Your task to perform on an android device: Open Wikipedia Image 0: 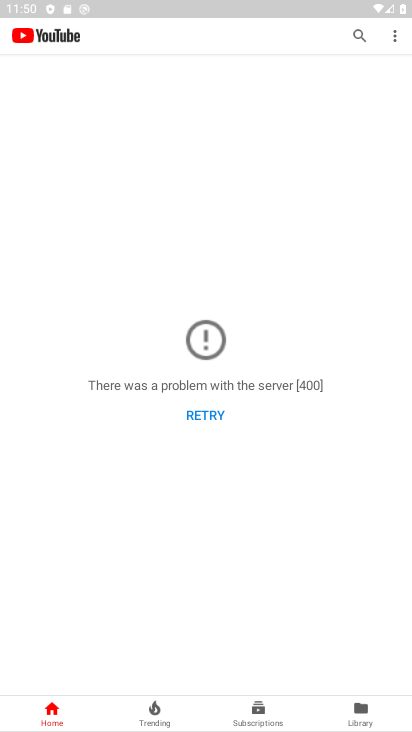
Step 0: press home button
Your task to perform on an android device: Open Wikipedia Image 1: 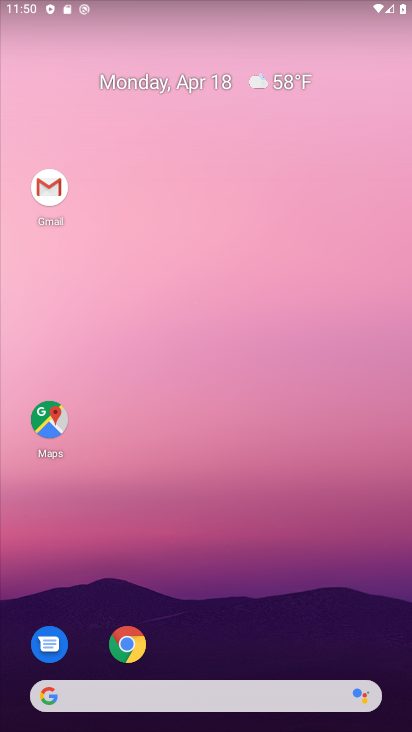
Step 1: click (135, 643)
Your task to perform on an android device: Open Wikipedia Image 2: 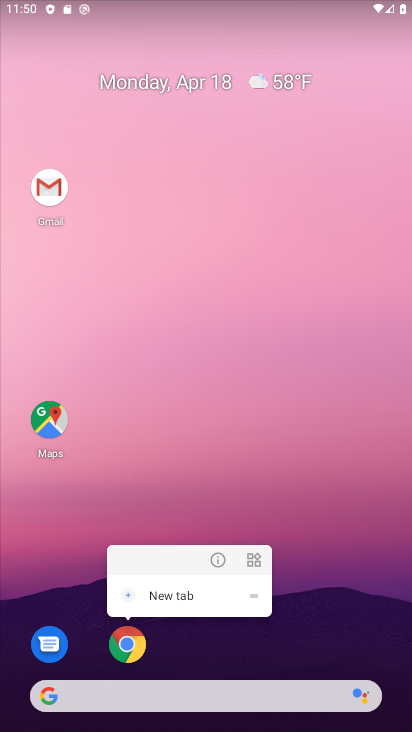
Step 2: click (125, 633)
Your task to perform on an android device: Open Wikipedia Image 3: 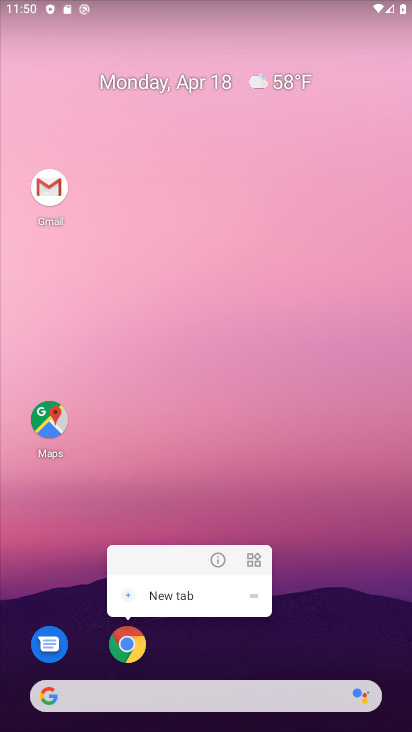
Step 3: click (134, 666)
Your task to perform on an android device: Open Wikipedia Image 4: 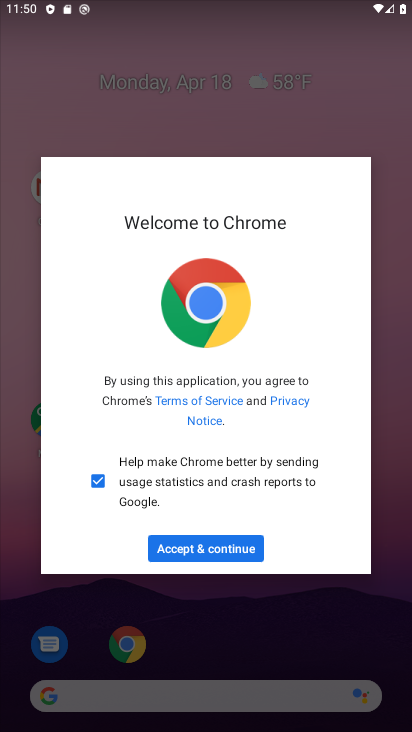
Step 4: click (229, 553)
Your task to perform on an android device: Open Wikipedia Image 5: 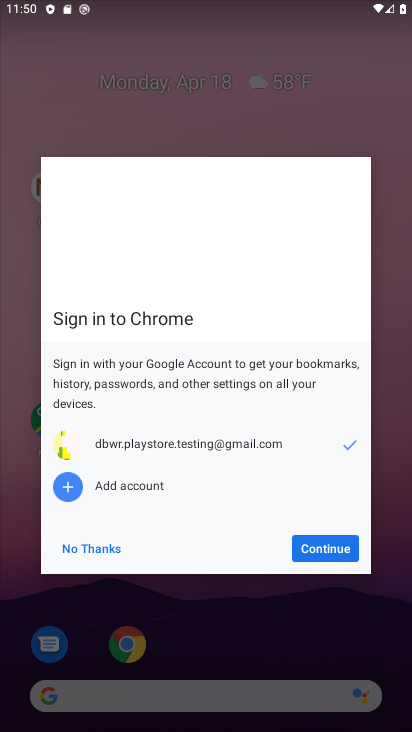
Step 5: click (333, 550)
Your task to perform on an android device: Open Wikipedia Image 6: 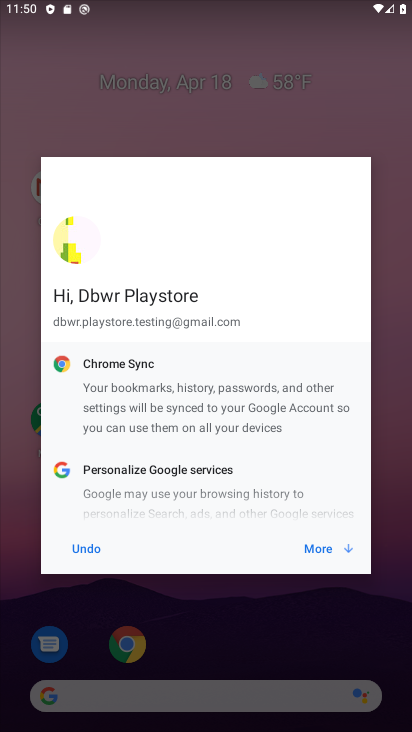
Step 6: click (333, 550)
Your task to perform on an android device: Open Wikipedia Image 7: 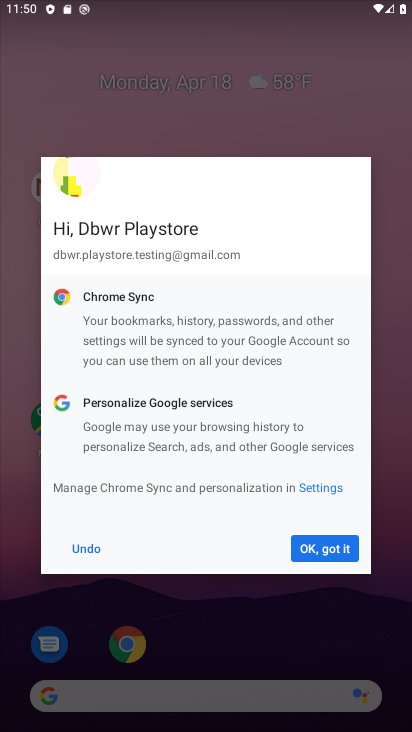
Step 7: click (333, 550)
Your task to perform on an android device: Open Wikipedia Image 8: 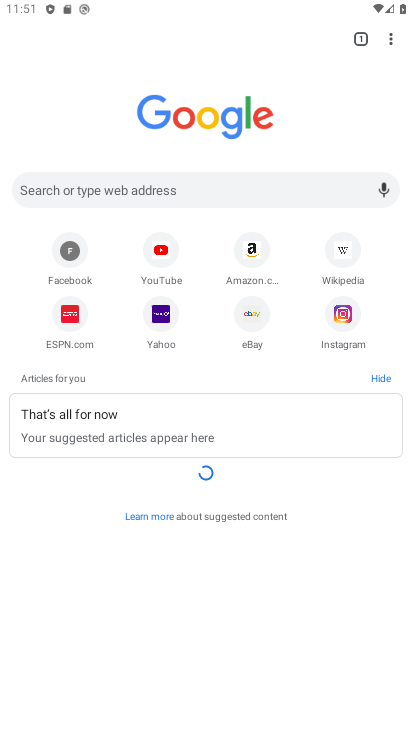
Step 8: click (344, 261)
Your task to perform on an android device: Open Wikipedia Image 9: 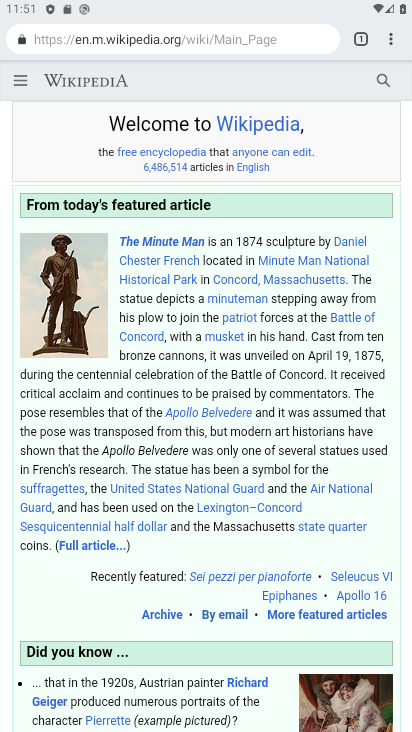
Step 9: task complete